Your task to perform on an android device: Go to CNN.com Image 0: 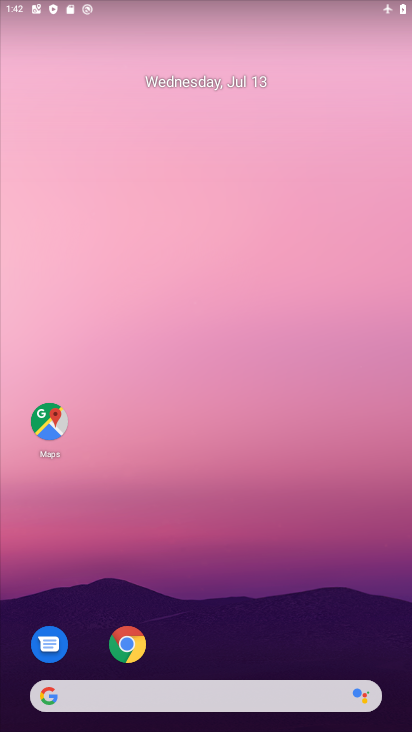
Step 0: drag from (311, 623) to (311, 117)
Your task to perform on an android device: Go to CNN.com Image 1: 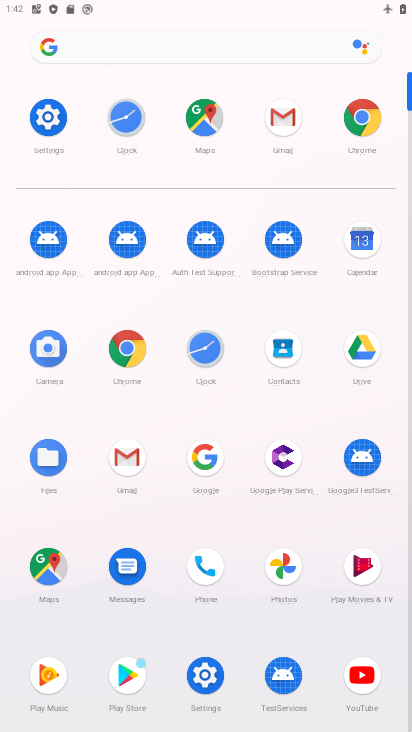
Step 1: click (125, 347)
Your task to perform on an android device: Go to CNN.com Image 2: 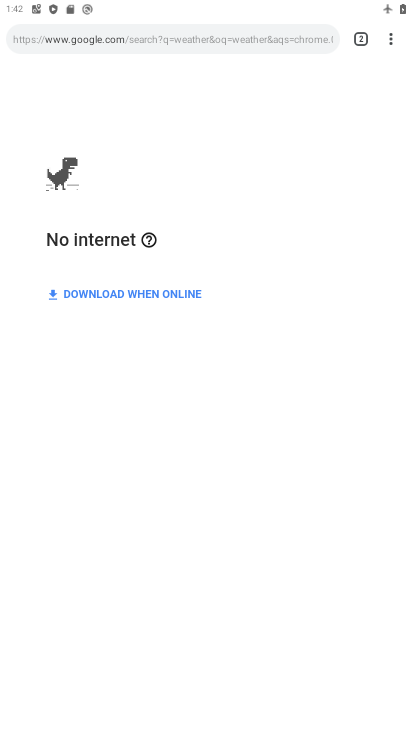
Step 2: click (219, 36)
Your task to perform on an android device: Go to CNN.com Image 3: 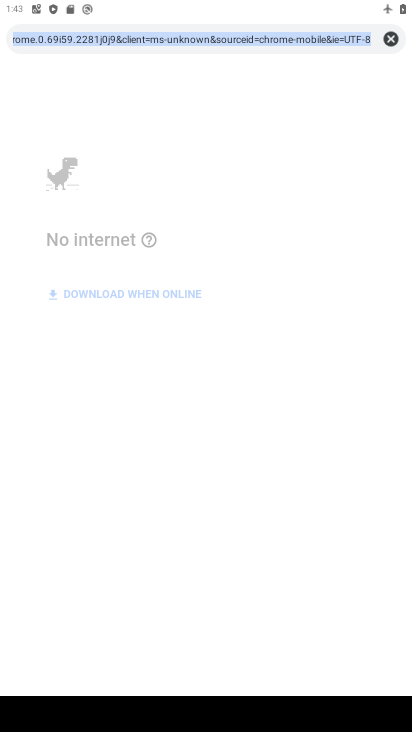
Step 3: type "cnn.com"
Your task to perform on an android device: Go to CNN.com Image 4: 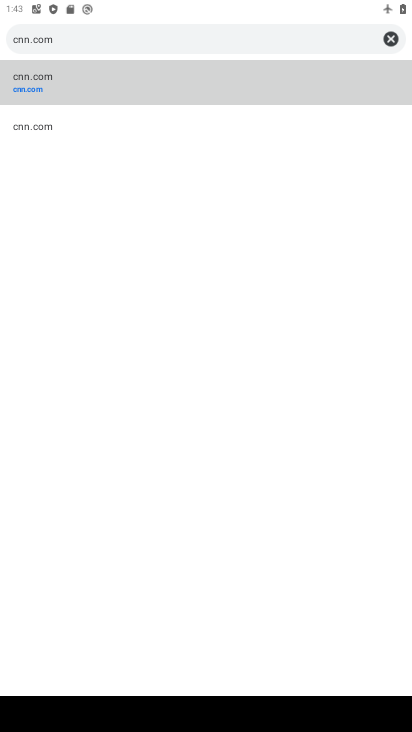
Step 4: click (41, 101)
Your task to perform on an android device: Go to CNN.com Image 5: 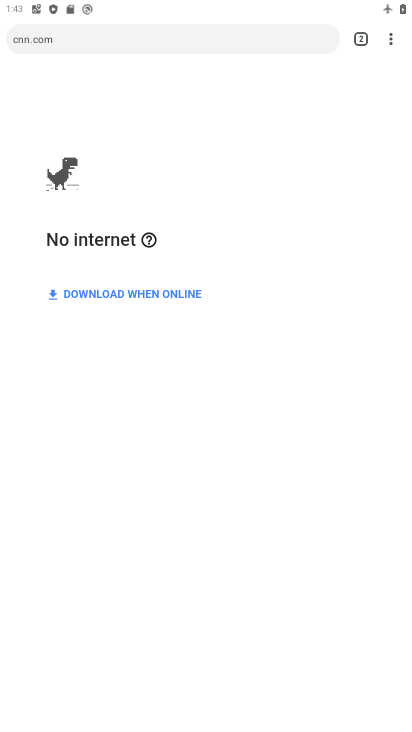
Step 5: task complete